Your task to perform on an android device: toggle javascript in the chrome app Image 0: 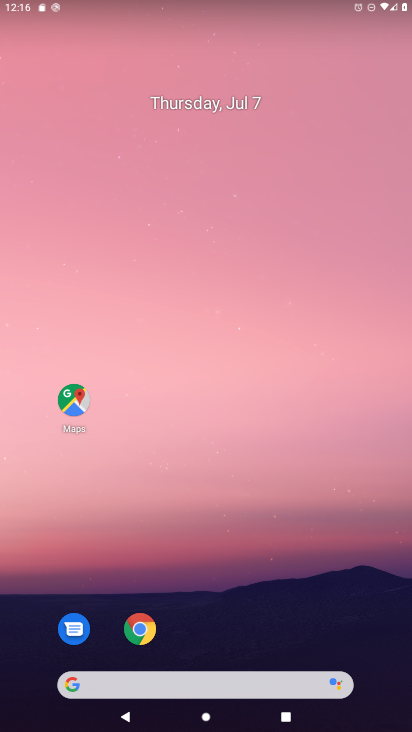
Step 0: click (142, 635)
Your task to perform on an android device: toggle javascript in the chrome app Image 1: 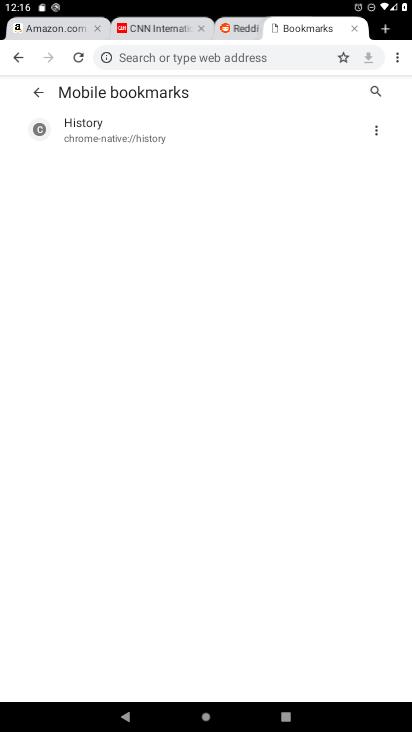
Step 1: click (391, 63)
Your task to perform on an android device: toggle javascript in the chrome app Image 2: 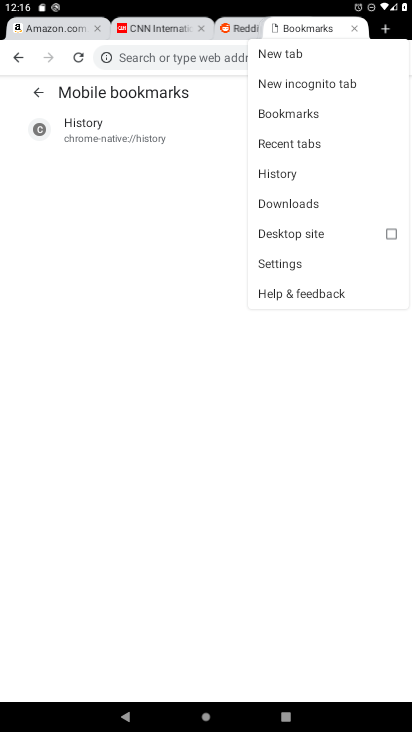
Step 2: click (292, 267)
Your task to perform on an android device: toggle javascript in the chrome app Image 3: 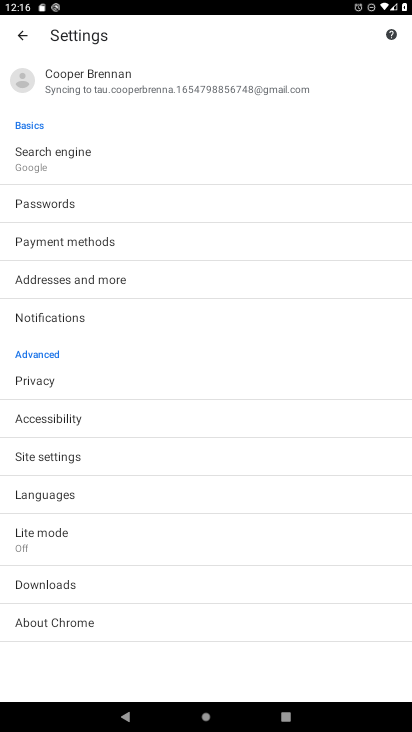
Step 3: click (95, 457)
Your task to perform on an android device: toggle javascript in the chrome app Image 4: 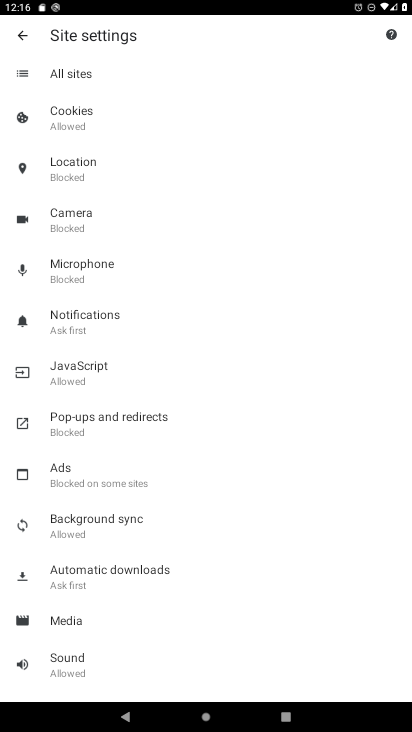
Step 4: click (109, 382)
Your task to perform on an android device: toggle javascript in the chrome app Image 5: 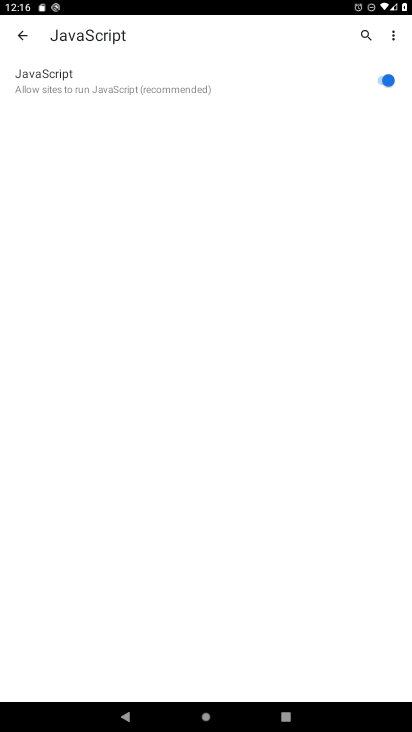
Step 5: click (372, 81)
Your task to perform on an android device: toggle javascript in the chrome app Image 6: 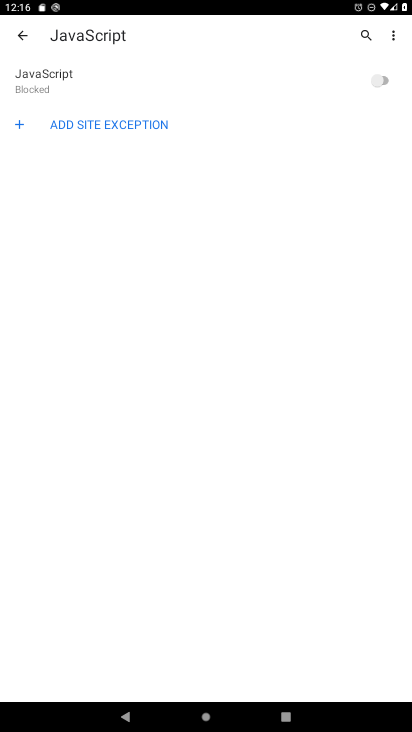
Step 6: task complete